Your task to perform on an android device: Open internet settings Image 0: 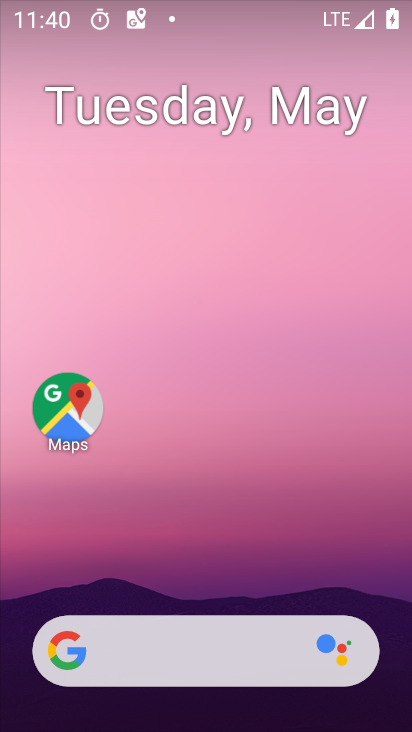
Step 0: drag from (190, 684) to (186, 294)
Your task to perform on an android device: Open internet settings Image 1: 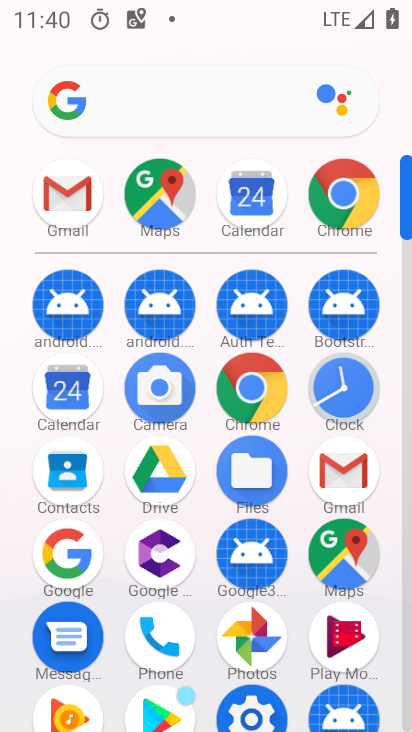
Step 1: click (239, 711)
Your task to perform on an android device: Open internet settings Image 2: 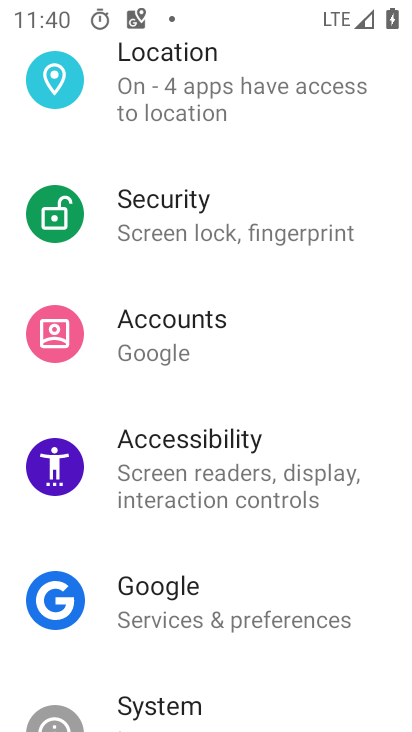
Step 2: drag from (296, 220) to (344, 709)
Your task to perform on an android device: Open internet settings Image 3: 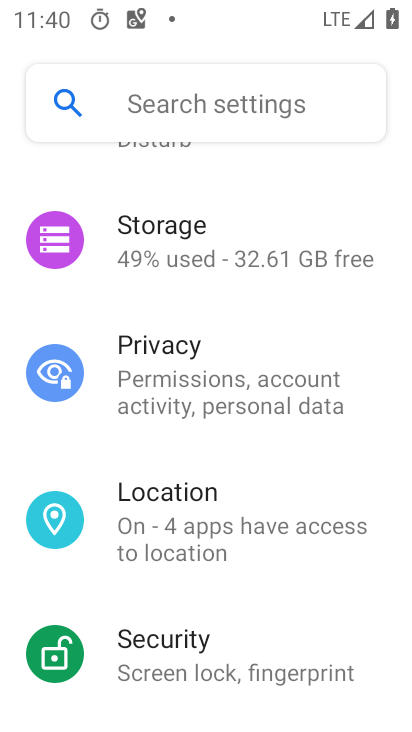
Step 3: drag from (212, 174) to (275, 679)
Your task to perform on an android device: Open internet settings Image 4: 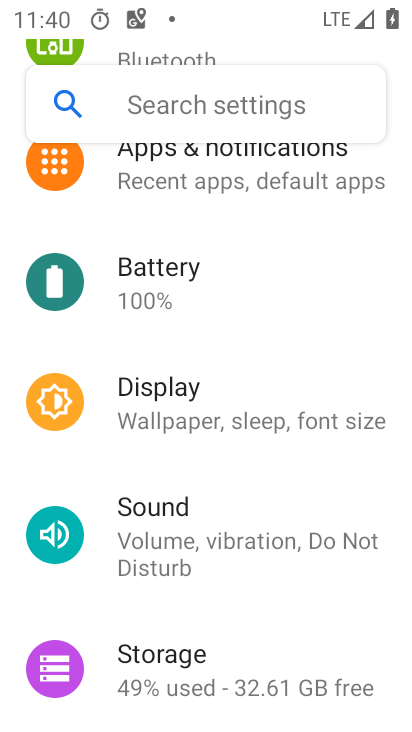
Step 4: drag from (261, 217) to (279, 538)
Your task to perform on an android device: Open internet settings Image 5: 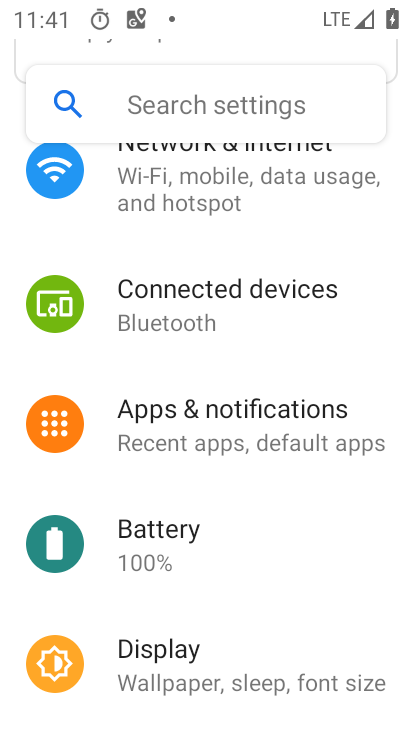
Step 5: click (230, 209)
Your task to perform on an android device: Open internet settings Image 6: 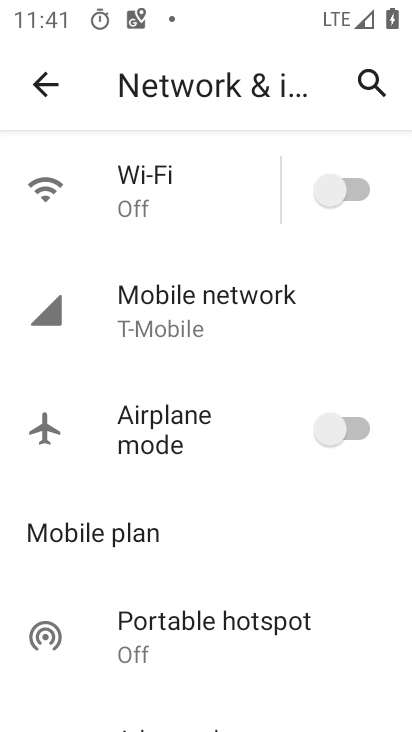
Step 6: task complete